Your task to perform on an android device: Go to display settings Image 0: 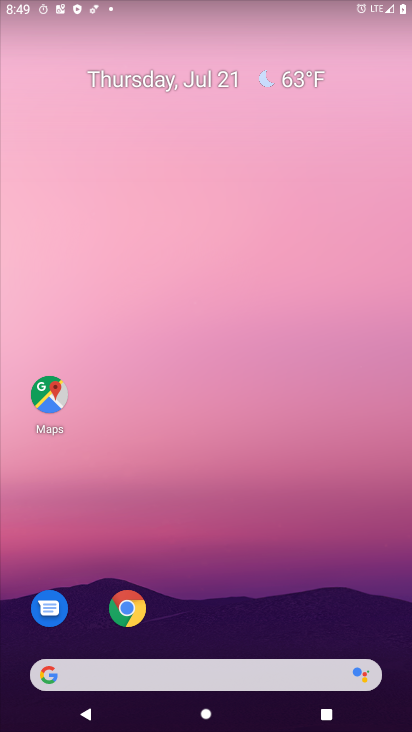
Step 0: press home button
Your task to perform on an android device: Go to display settings Image 1: 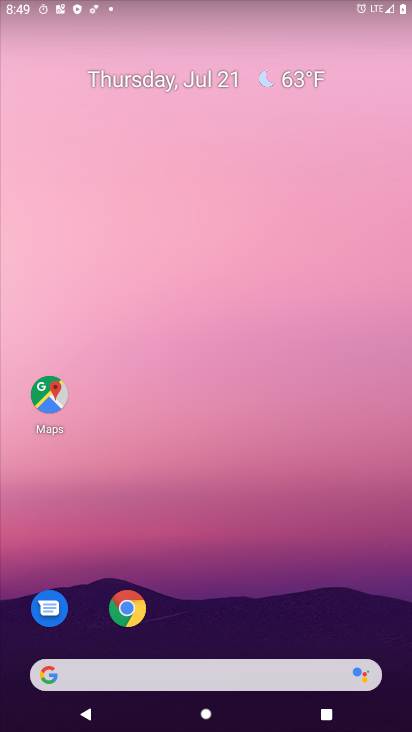
Step 1: drag from (209, 612) to (350, 32)
Your task to perform on an android device: Go to display settings Image 2: 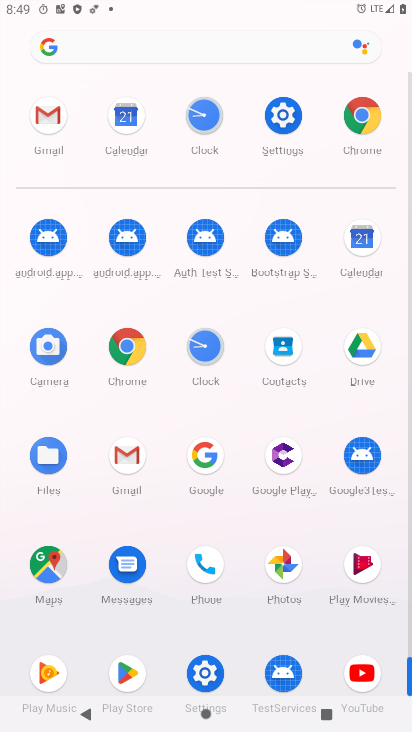
Step 2: click (281, 139)
Your task to perform on an android device: Go to display settings Image 3: 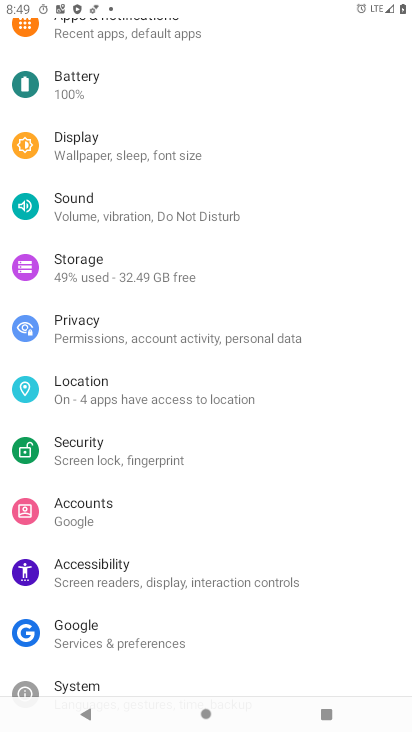
Step 3: click (119, 162)
Your task to perform on an android device: Go to display settings Image 4: 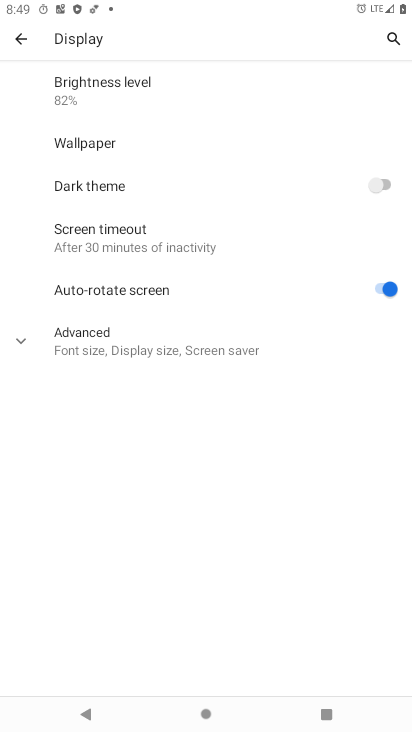
Step 4: task complete